Your task to perform on an android device: empty trash in google photos Image 0: 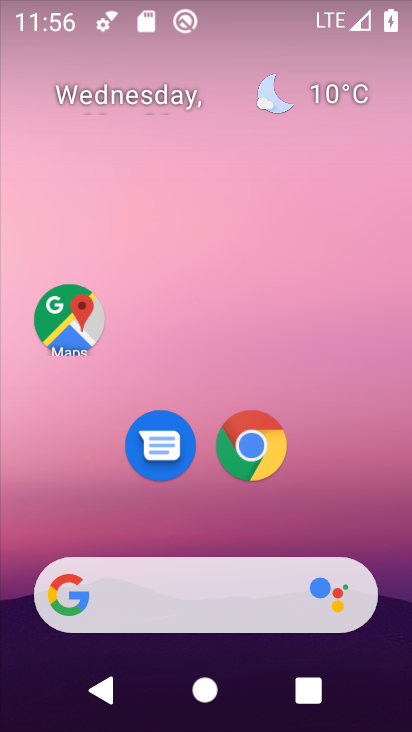
Step 0: drag from (201, 469) to (251, 32)
Your task to perform on an android device: empty trash in google photos Image 1: 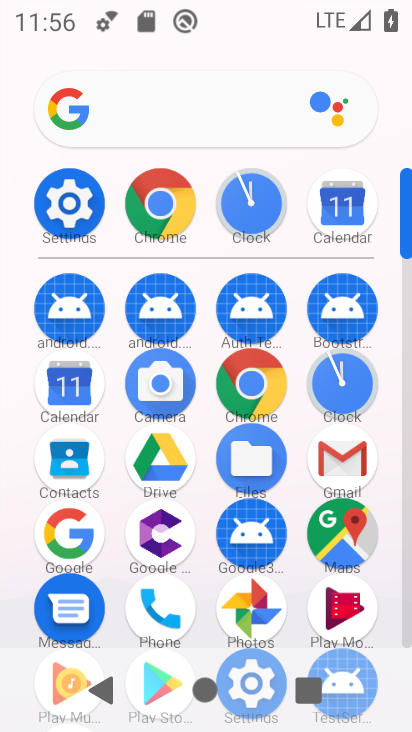
Step 1: click (266, 604)
Your task to perform on an android device: empty trash in google photos Image 2: 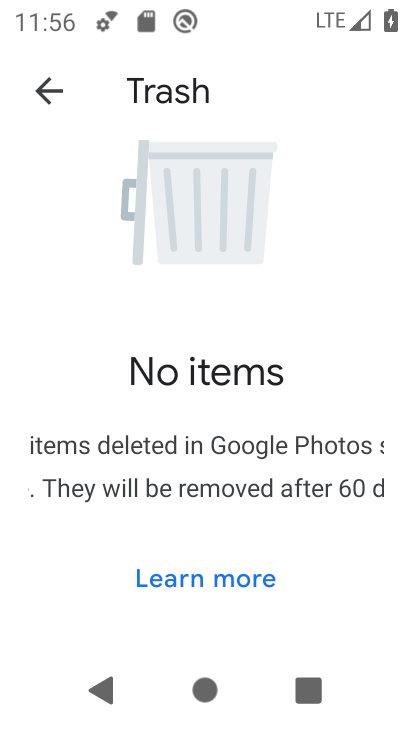
Step 2: task complete